Your task to perform on an android device: turn on priority inbox in the gmail app Image 0: 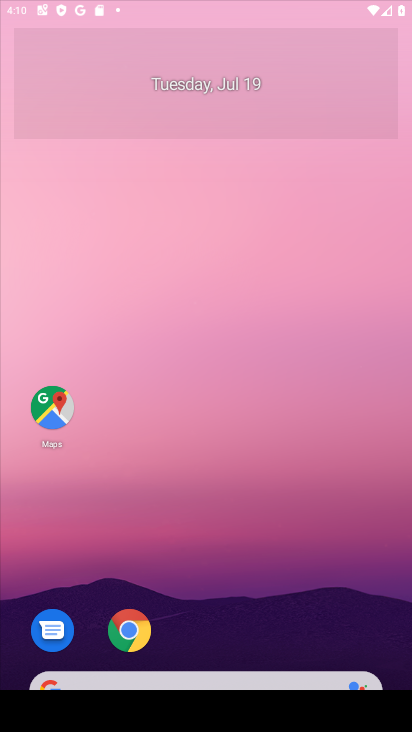
Step 0: press home button
Your task to perform on an android device: turn on priority inbox in the gmail app Image 1: 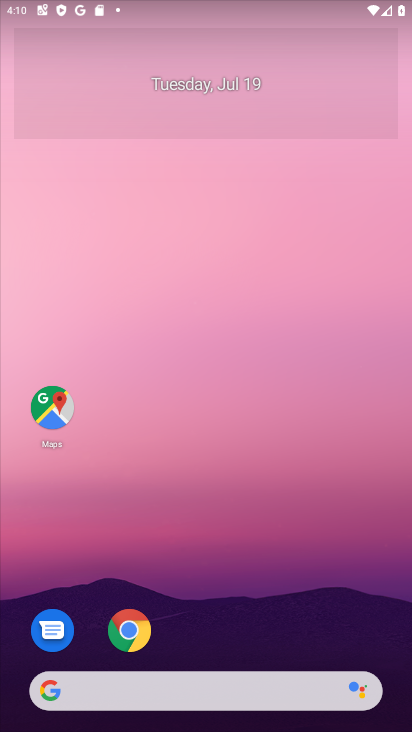
Step 1: drag from (307, 592) to (255, 2)
Your task to perform on an android device: turn on priority inbox in the gmail app Image 2: 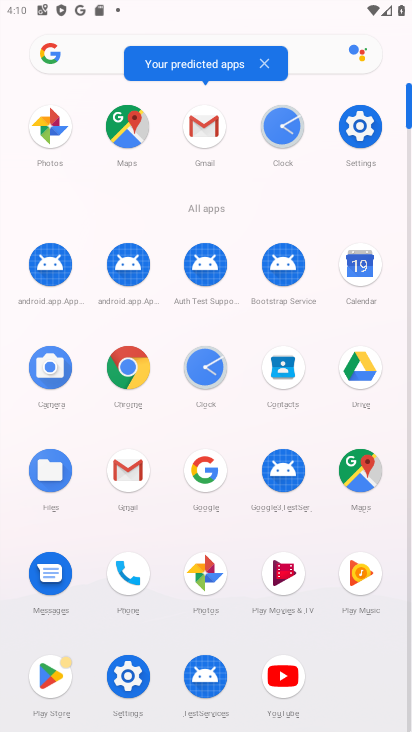
Step 2: click (205, 123)
Your task to perform on an android device: turn on priority inbox in the gmail app Image 3: 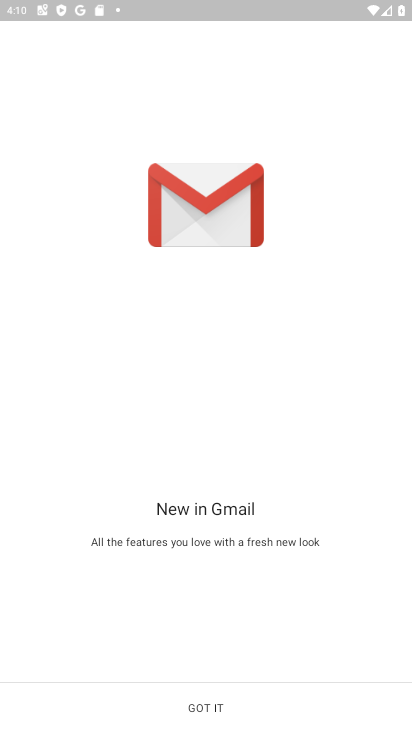
Step 3: click (204, 696)
Your task to perform on an android device: turn on priority inbox in the gmail app Image 4: 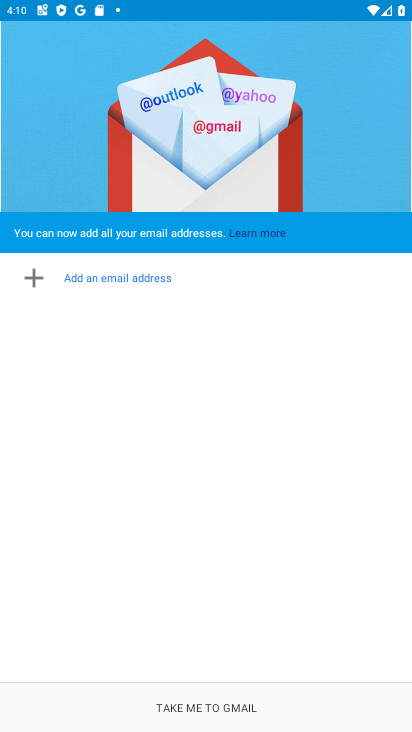
Step 4: click (204, 698)
Your task to perform on an android device: turn on priority inbox in the gmail app Image 5: 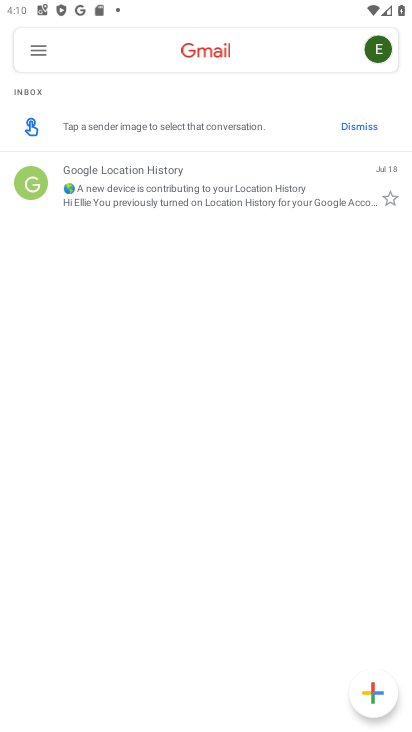
Step 5: click (37, 52)
Your task to perform on an android device: turn on priority inbox in the gmail app Image 6: 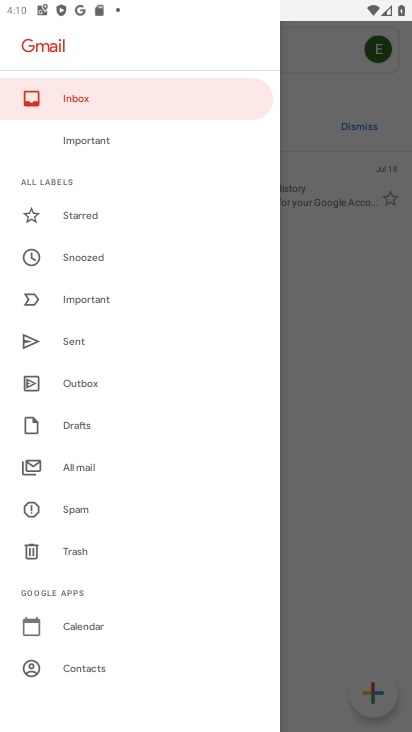
Step 6: drag from (102, 587) to (123, 255)
Your task to perform on an android device: turn on priority inbox in the gmail app Image 7: 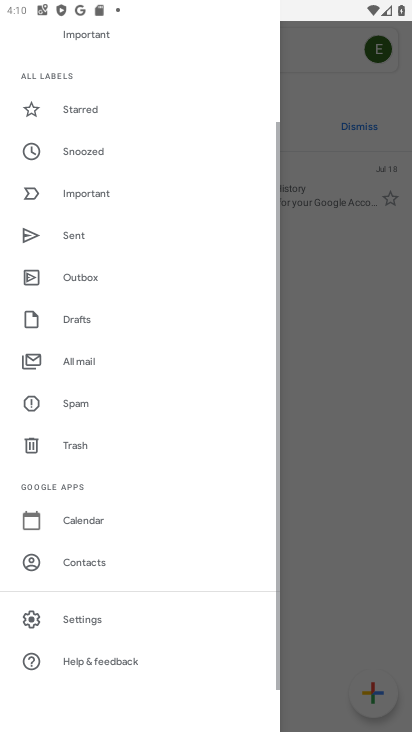
Step 7: click (69, 615)
Your task to perform on an android device: turn on priority inbox in the gmail app Image 8: 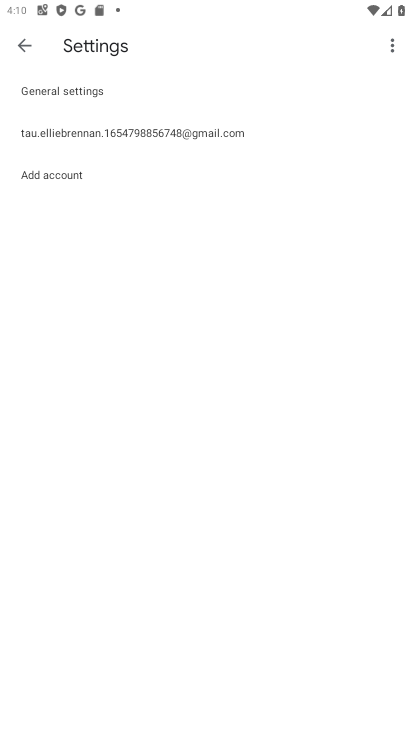
Step 8: click (73, 132)
Your task to perform on an android device: turn on priority inbox in the gmail app Image 9: 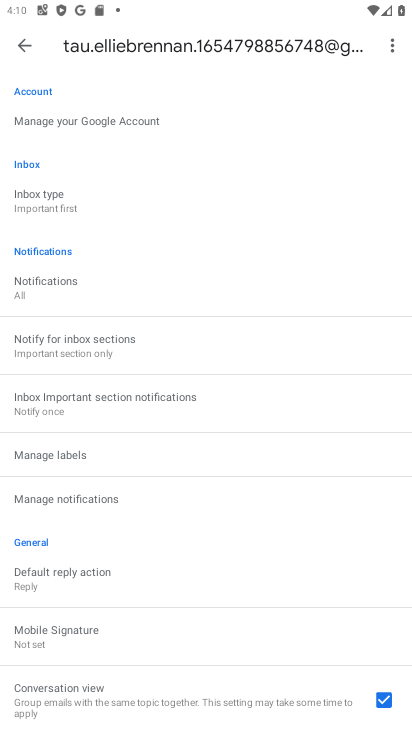
Step 9: click (45, 195)
Your task to perform on an android device: turn on priority inbox in the gmail app Image 10: 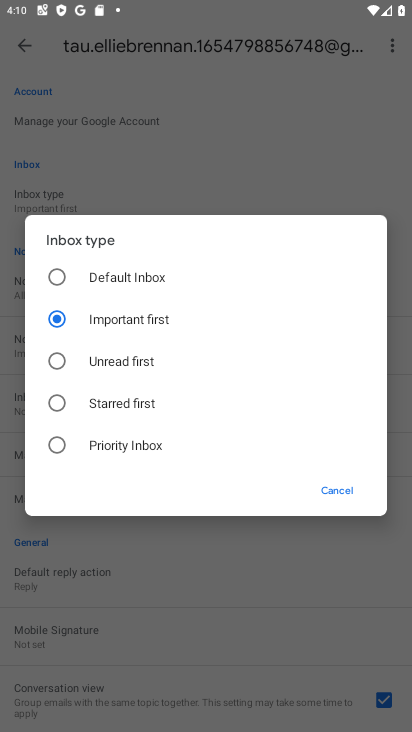
Step 10: click (67, 442)
Your task to perform on an android device: turn on priority inbox in the gmail app Image 11: 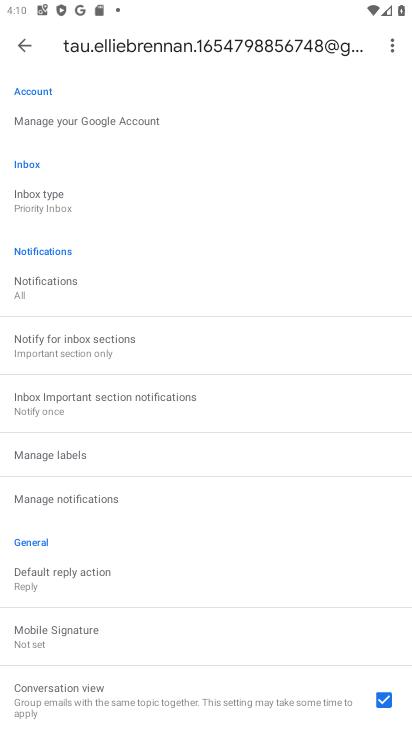
Step 11: task complete